Your task to perform on an android device: toggle translation in the chrome app Image 0: 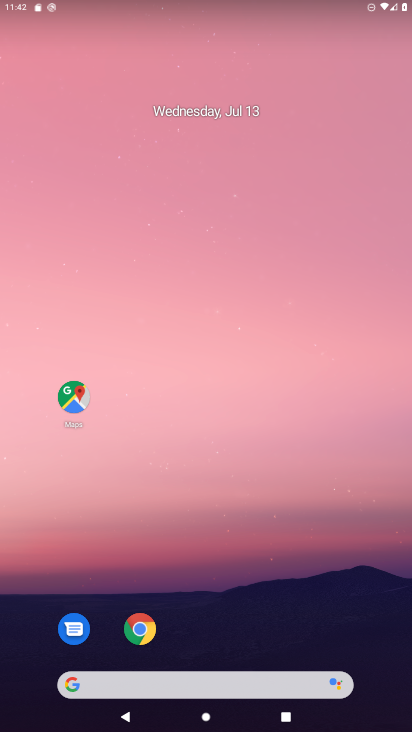
Step 0: click (398, 480)
Your task to perform on an android device: toggle translation in the chrome app Image 1: 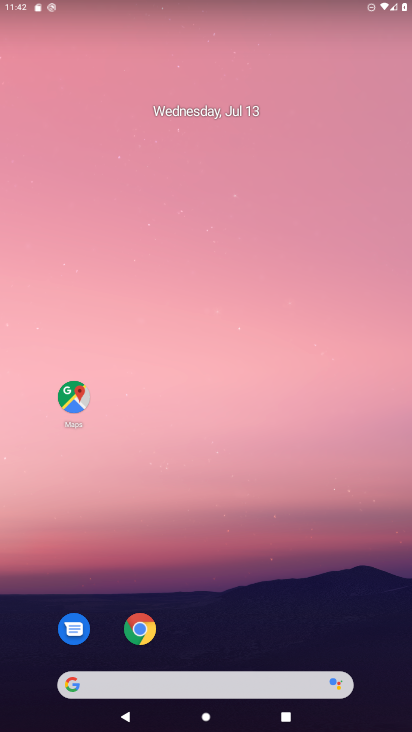
Step 1: click (155, 627)
Your task to perform on an android device: toggle translation in the chrome app Image 2: 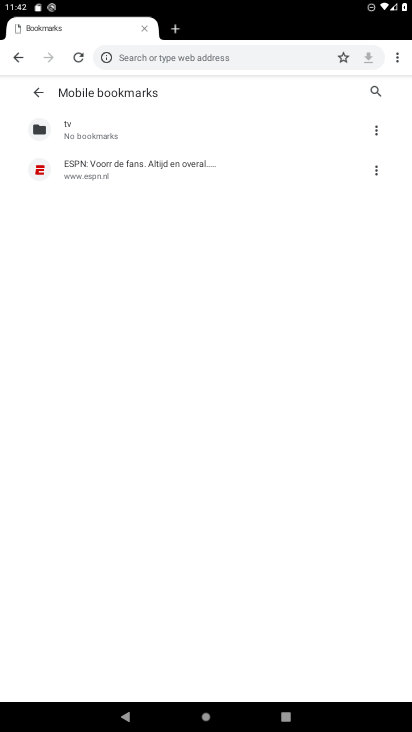
Step 2: click (395, 57)
Your task to perform on an android device: toggle translation in the chrome app Image 3: 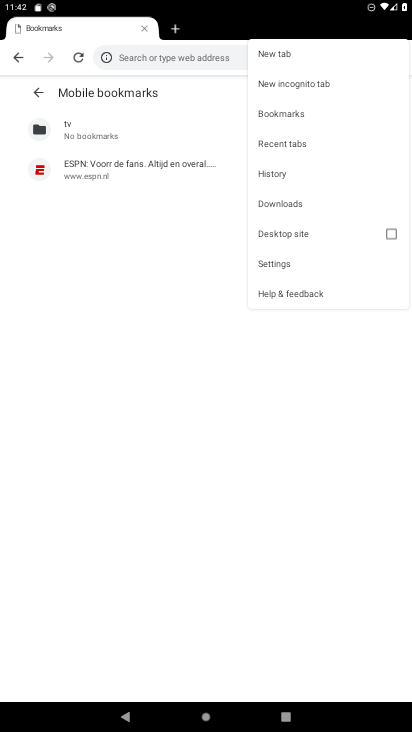
Step 3: click (286, 263)
Your task to perform on an android device: toggle translation in the chrome app Image 4: 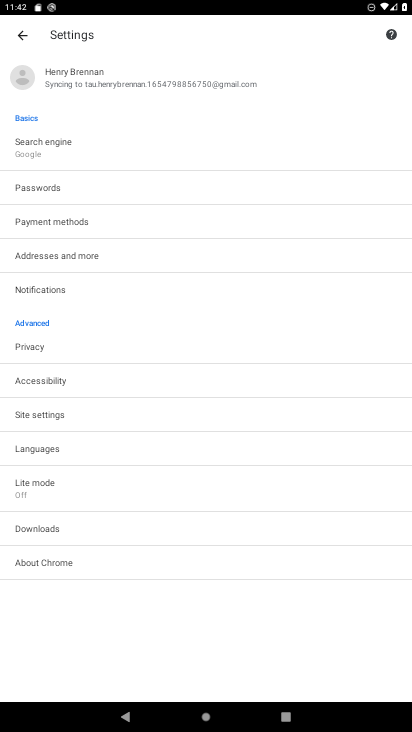
Step 4: click (57, 453)
Your task to perform on an android device: toggle translation in the chrome app Image 5: 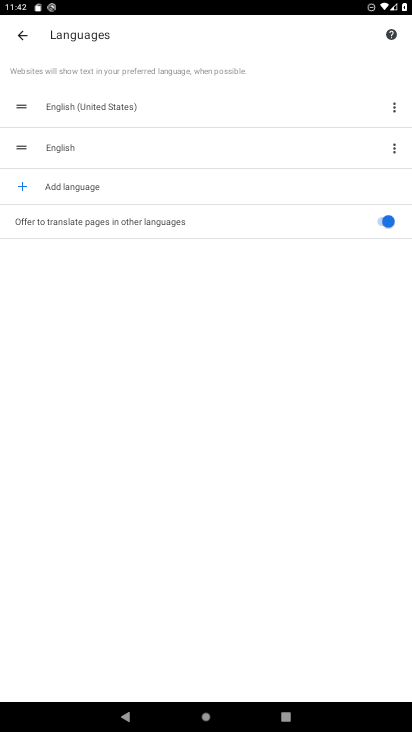
Step 5: click (384, 217)
Your task to perform on an android device: toggle translation in the chrome app Image 6: 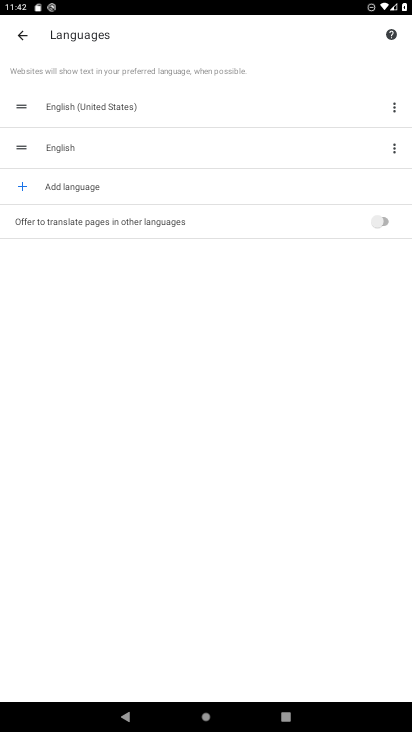
Step 6: task complete